Your task to perform on an android device: see sites visited before in the chrome app Image 0: 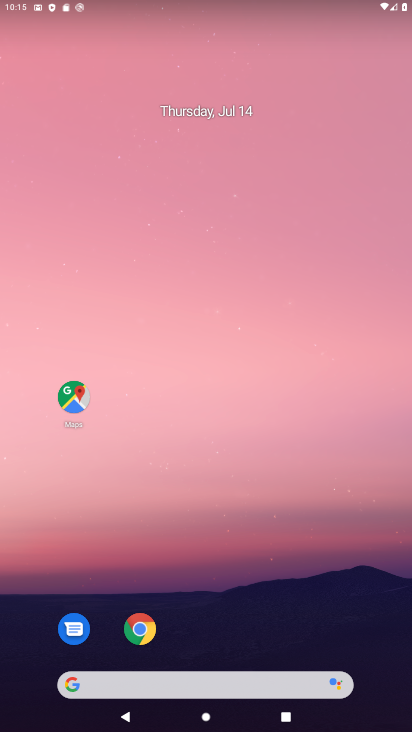
Step 0: click (131, 620)
Your task to perform on an android device: see sites visited before in the chrome app Image 1: 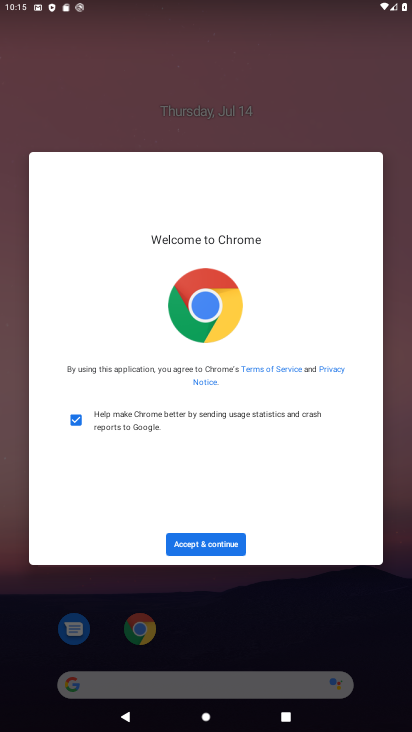
Step 1: click (220, 545)
Your task to perform on an android device: see sites visited before in the chrome app Image 2: 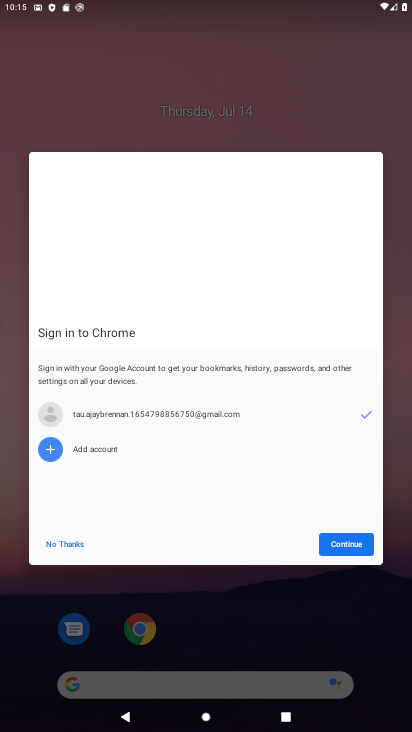
Step 2: click (351, 546)
Your task to perform on an android device: see sites visited before in the chrome app Image 3: 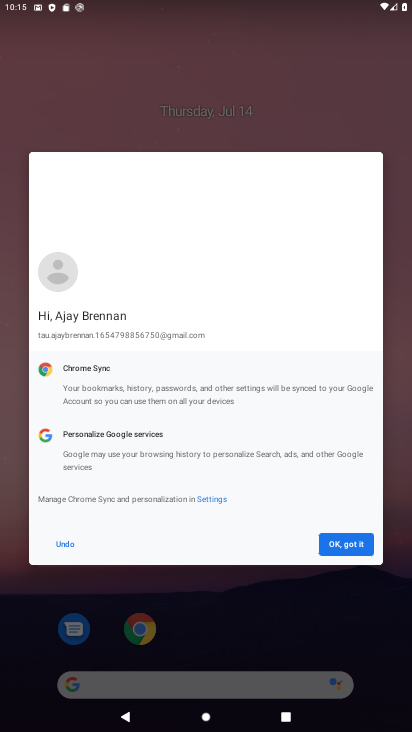
Step 3: click (351, 546)
Your task to perform on an android device: see sites visited before in the chrome app Image 4: 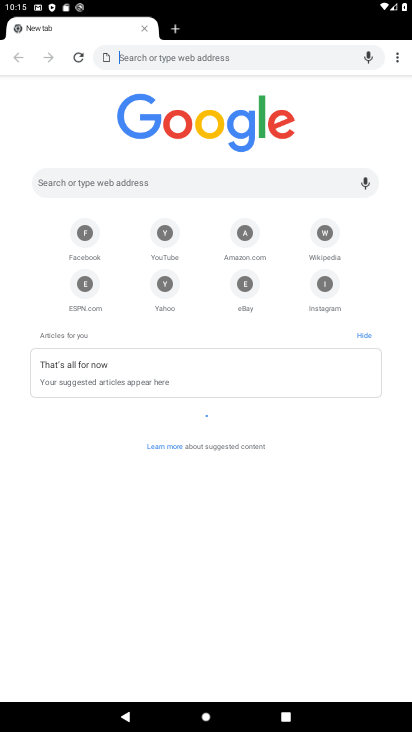
Step 4: click (399, 53)
Your task to perform on an android device: see sites visited before in the chrome app Image 5: 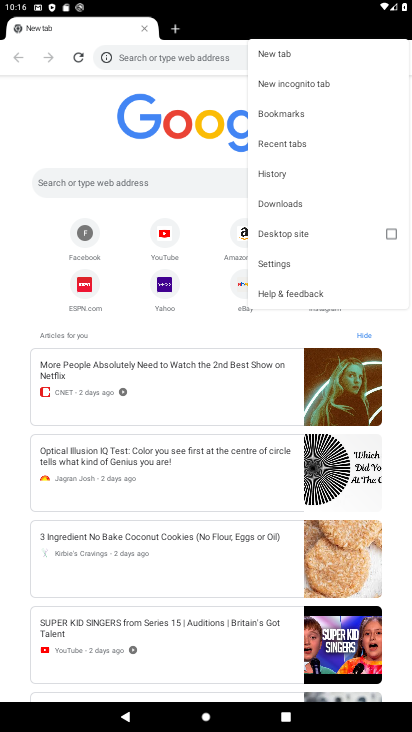
Step 5: click (275, 172)
Your task to perform on an android device: see sites visited before in the chrome app Image 6: 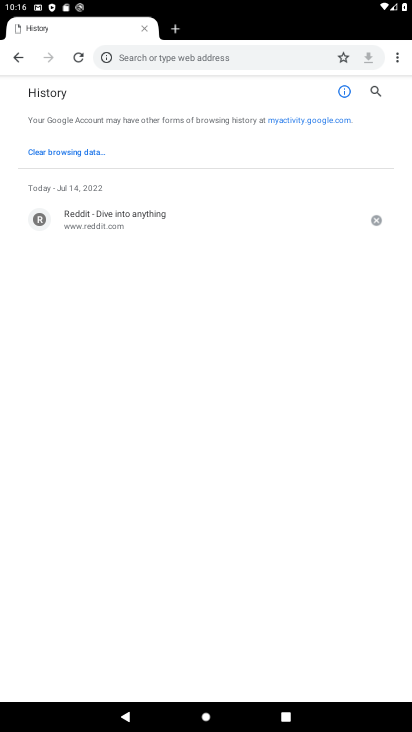
Step 6: task complete